Your task to perform on an android device: install app "Microsoft Authenticator" Image 0: 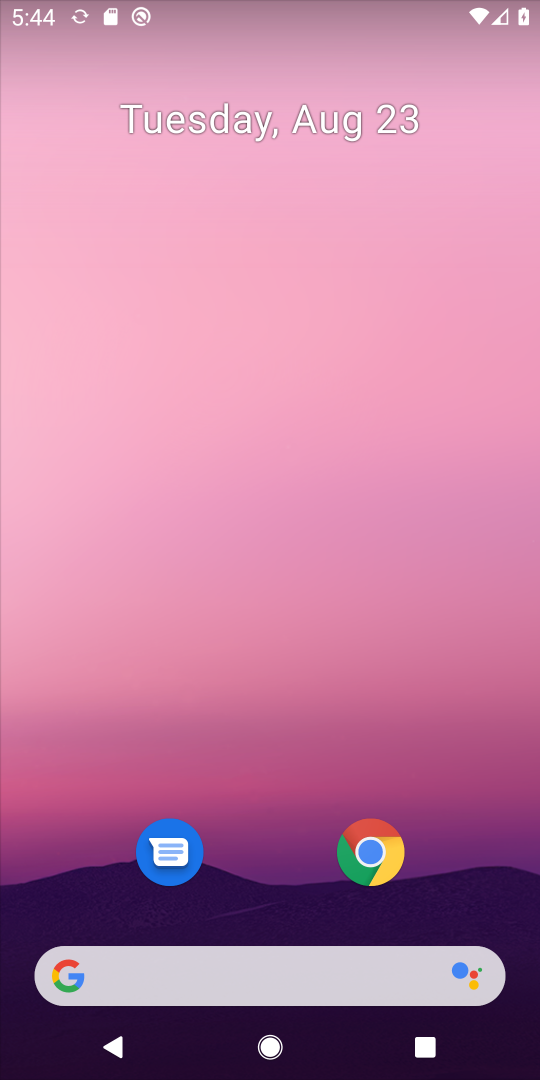
Step 0: drag from (215, 964) to (365, 62)
Your task to perform on an android device: install app "Microsoft Authenticator" Image 1: 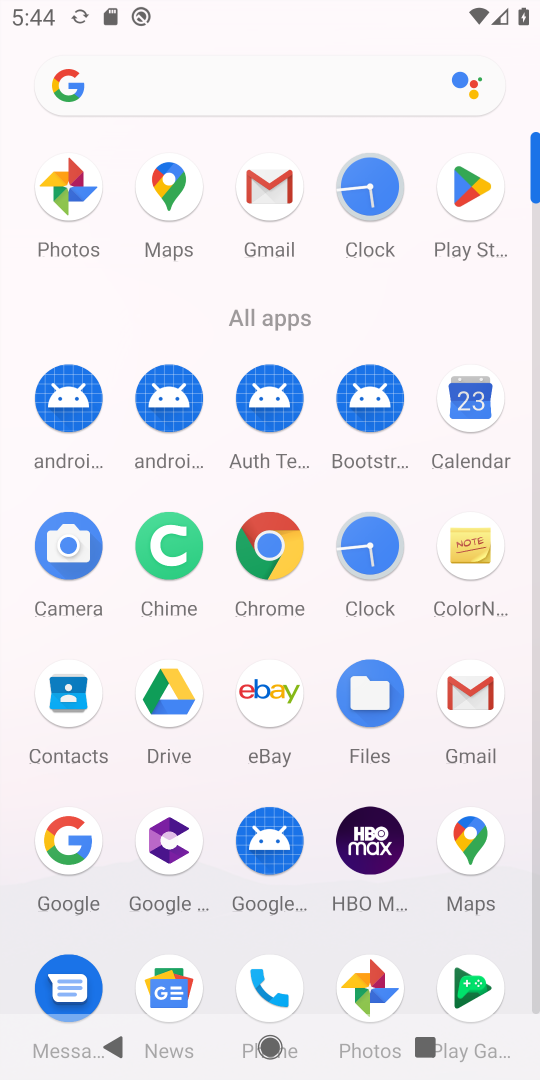
Step 1: click (475, 195)
Your task to perform on an android device: install app "Microsoft Authenticator" Image 2: 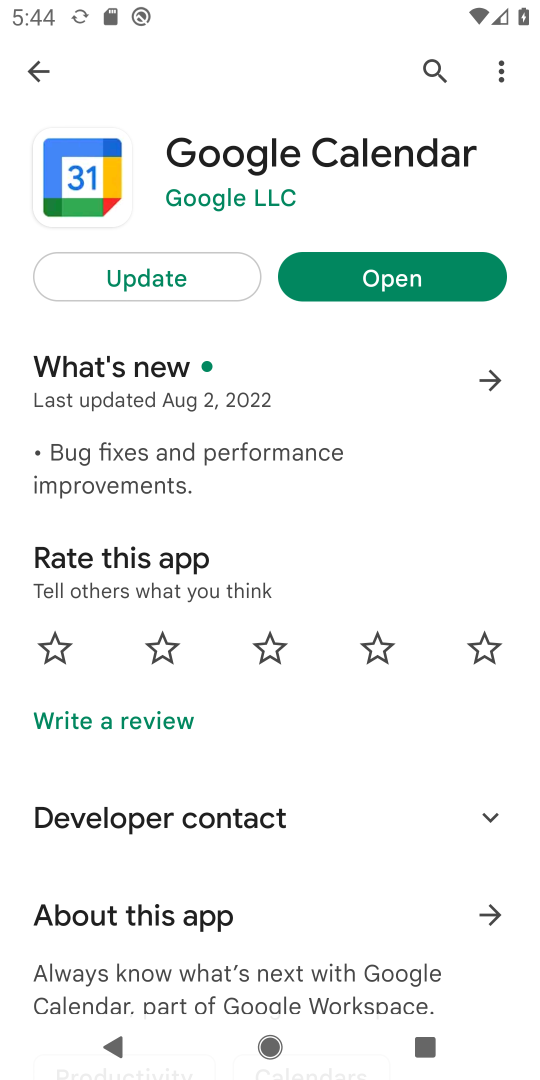
Step 2: press back button
Your task to perform on an android device: install app "Microsoft Authenticator" Image 3: 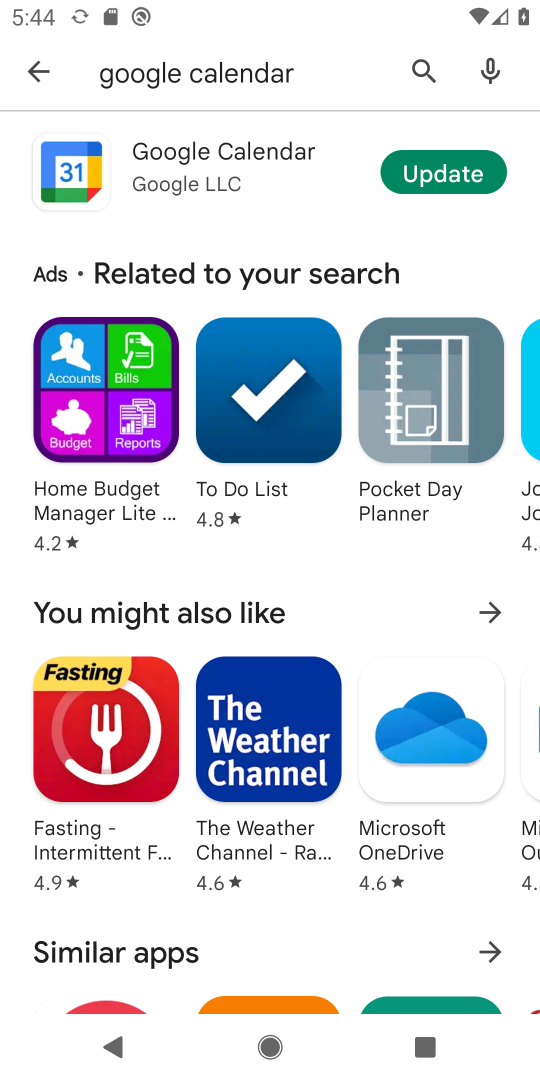
Step 3: press back button
Your task to perform on an android device: install app "Microsoft Authenticator" Image 4: 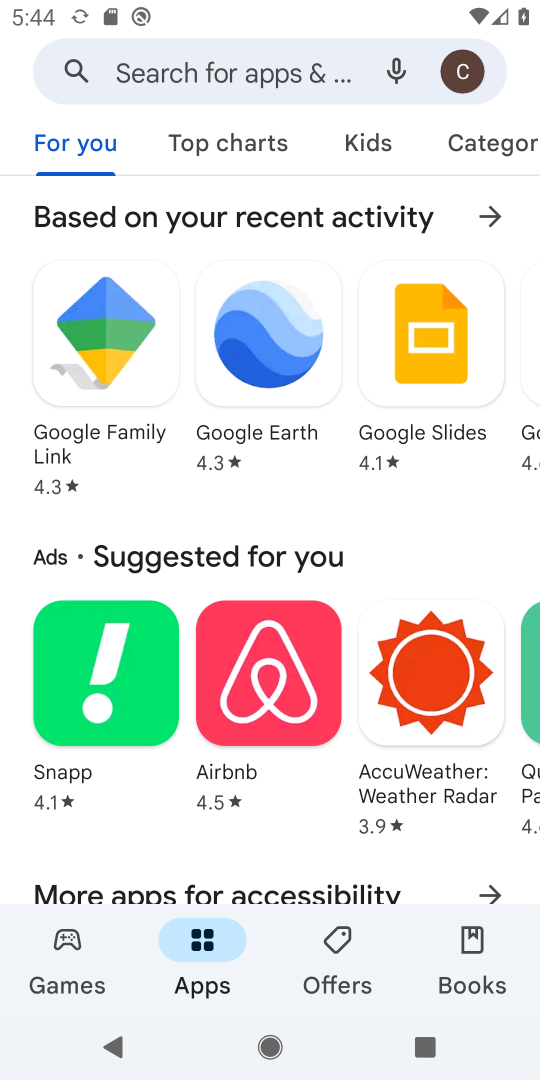
Step 4: click (278, 84)
Your task to perform on an android device: install app "Microsoft Authenticator" Image 5: 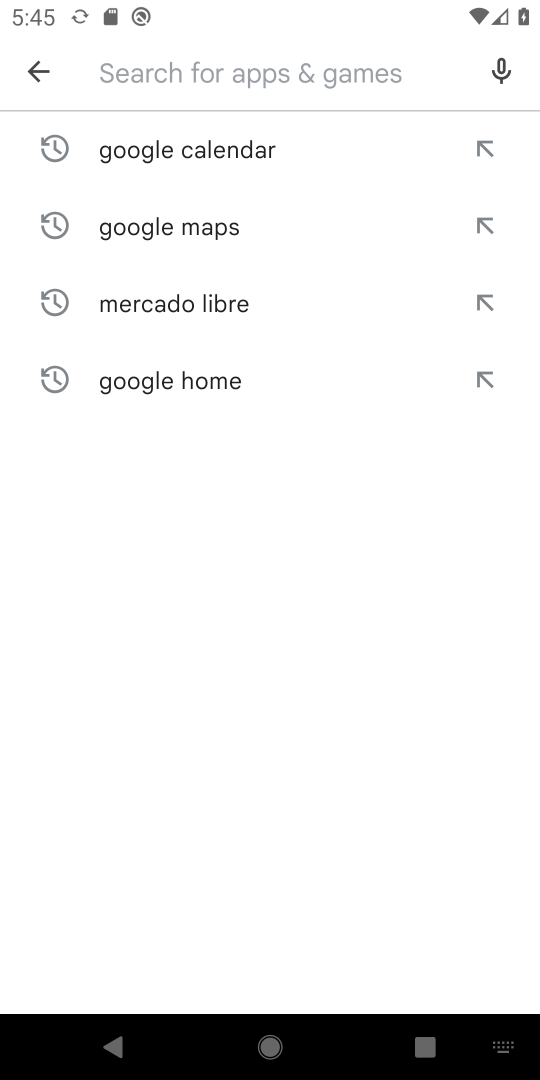
Step 5: type "Microsoft Authenticator"
Your task to perform on an android device: install app "Microsoft Authenticator" Image 6: 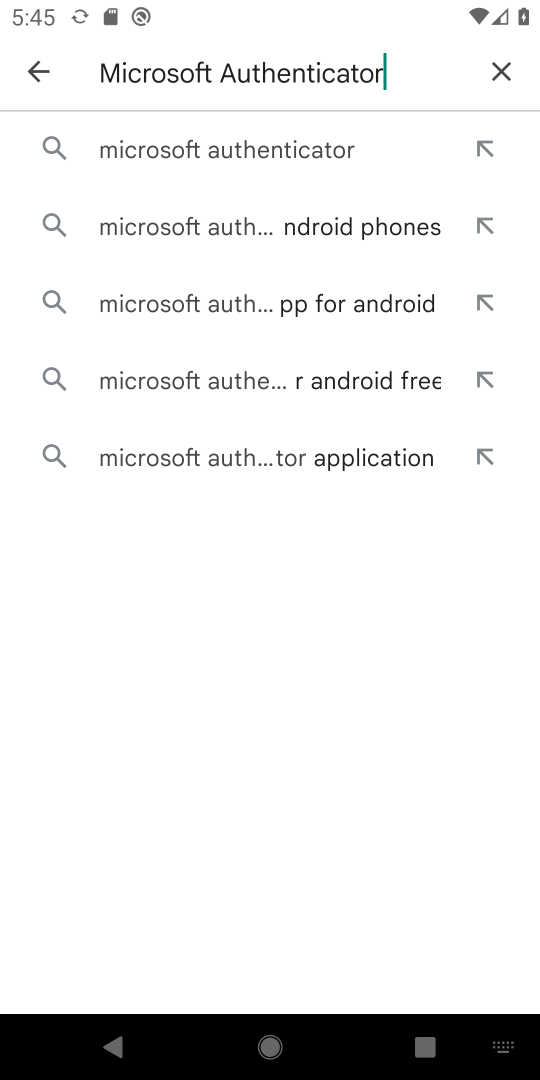
Step 6: click (302, 152)
Your task to perform on an android device: install app "Microsoft Authenticator" Image 7: 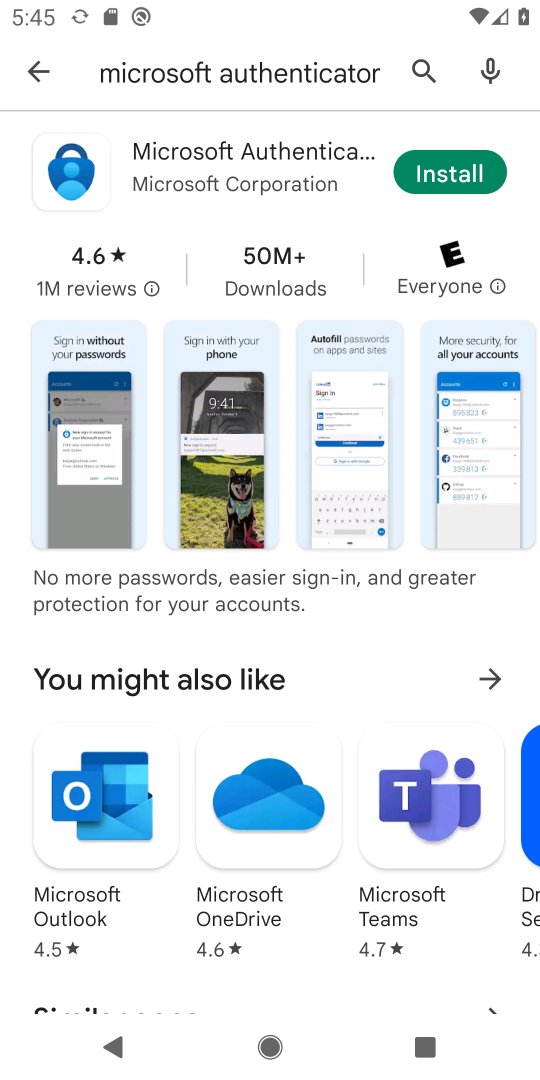
Step 7: click (465, 176)
Your task to perform on an android device: install app "Microsoft Authenticator" Image 8: 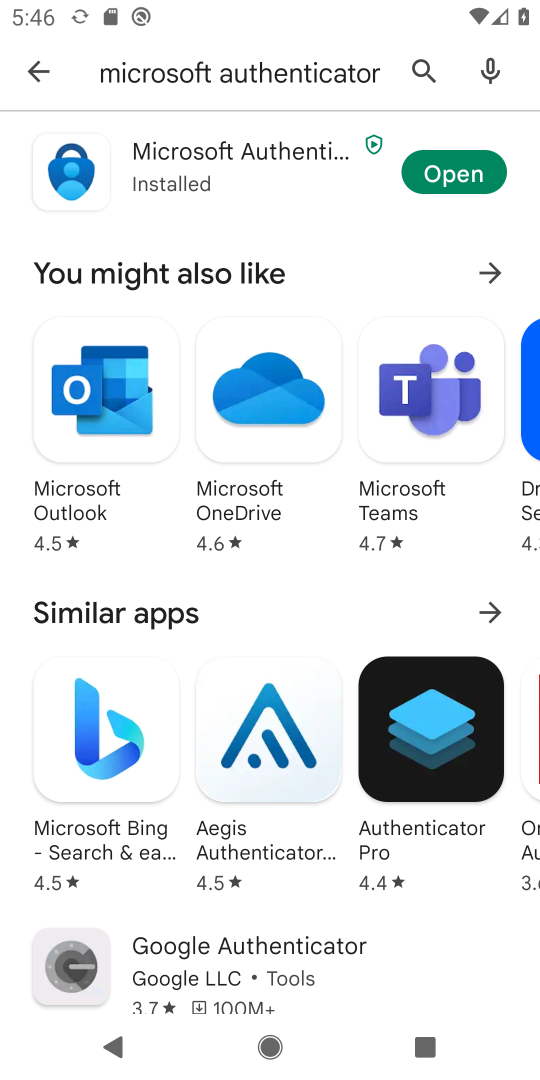
Step 8: task complete